Your task to perform on an android device: open app "Yahoo Mail" (install if not already installed), go to login, and select forgot password Image 0: 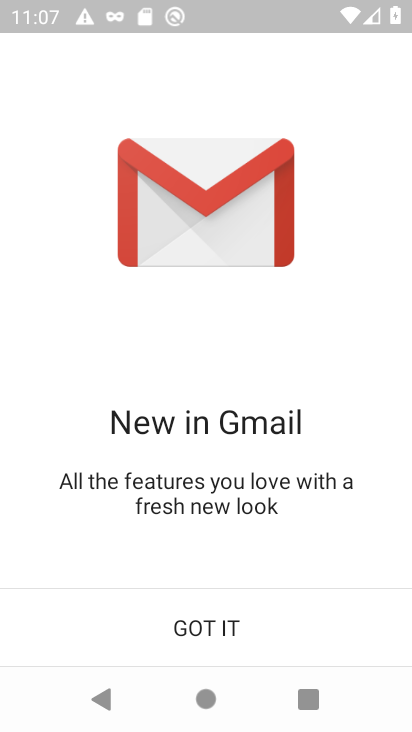
Step 0: press home button
Your task to perform on an android device: open app "Yahoo Mail" (install if not already installed), go to login, and select forgot password Image 1: 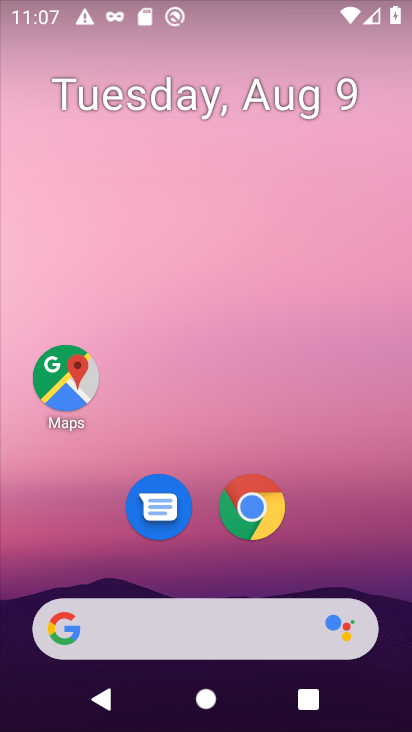
Step 1: drag from (161, 630) to (168, 104)
Your task to perform on an android device: open app "Yahoo Mail" (install if not already installed), go to login, and select forgot password Image 2: 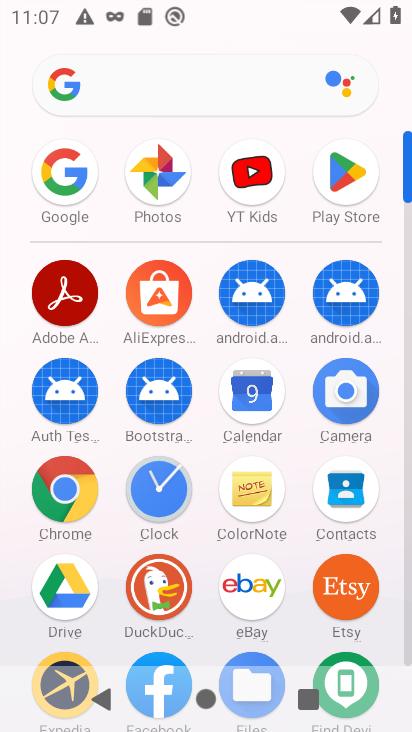
Step 2: press home button
Your task to perform on an android device: open app "Yahoo Mail" (install if not already installed), go to login, and select forgot password Image 3: 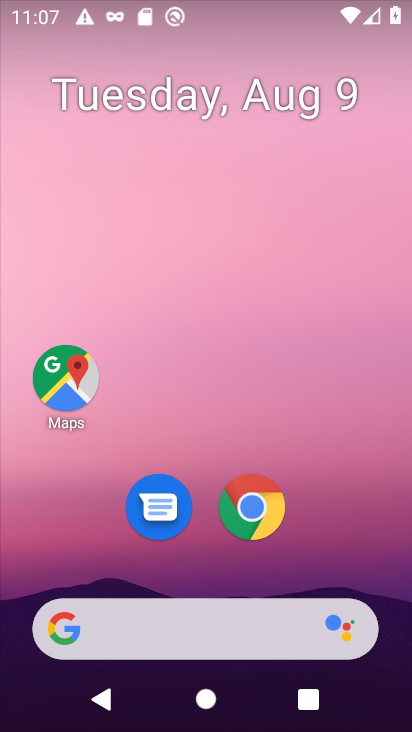
Step 3: drag from (172, 636) to (204, 191)
Your task to perform on an android device: open app "Yahoo Mail" (install if not already installed), go to login, and select forgot password Image 4: 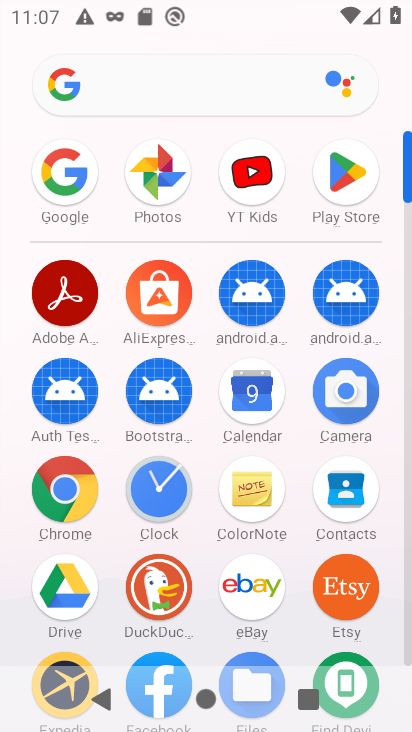
Step 4: click (352, 171)
Your task to perform on an android device: open app "Yahoo Mail" (install if not already installed), go to login, and select forgot password Image 5: 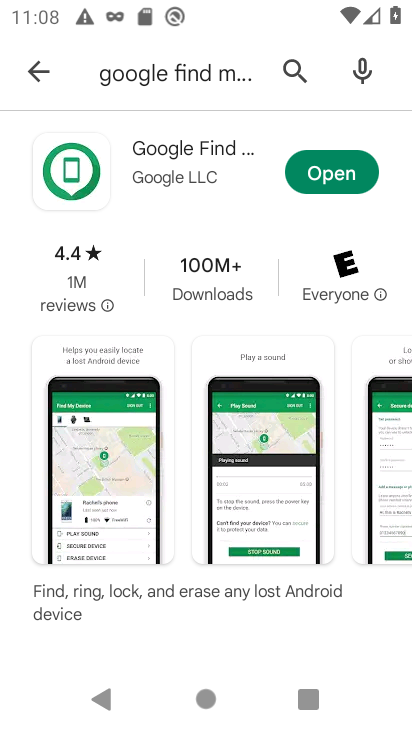
Step 5: press back button
Your task to perform on an android device: open app "Yahoo Mail" (install if not already installed), go to login, and select forgot password Image 6: 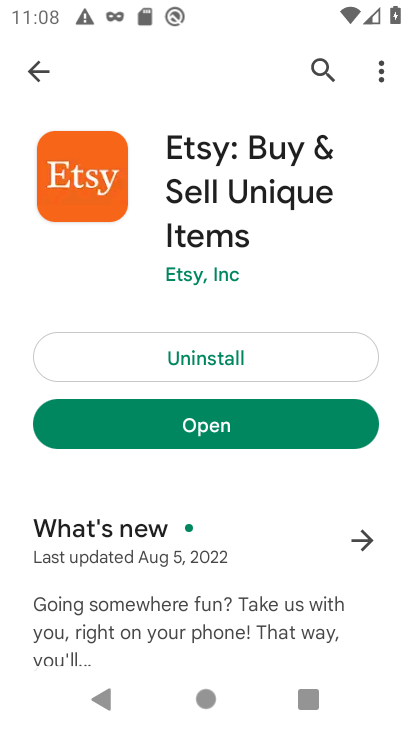
Step 6: click (313, 70)
Your task to perform on an android device: open app "Yahoo Mail" (install if not already installed), go to login, and select forgot password Image 7: 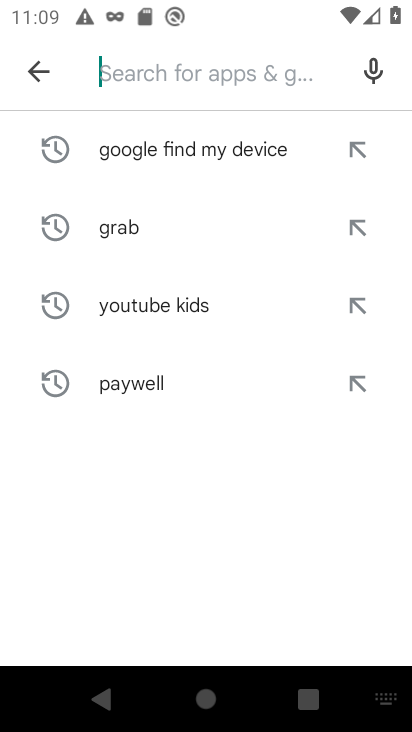
Step 7: type "Yahoo Mail"
Your task to perform on an android device: open app "Yahoo Mail" (install if not already installed), go to login, and select forgot password Image 8: 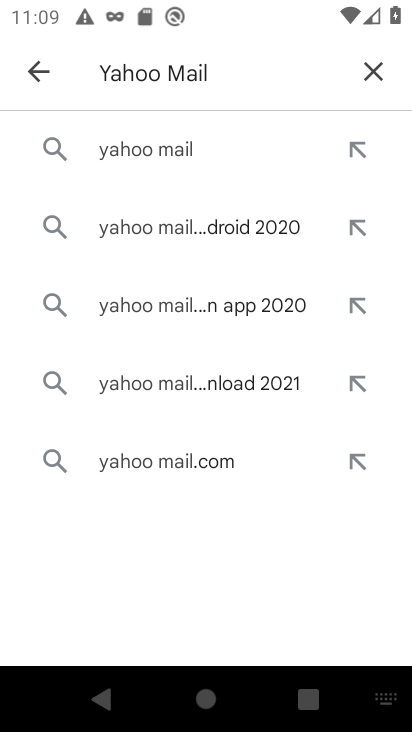
Step 8: click (169, 154)
Your task to perform on an android device: open app "Yahoo Mail" (install if not already installed), go to login, and select forgot password Image 9: 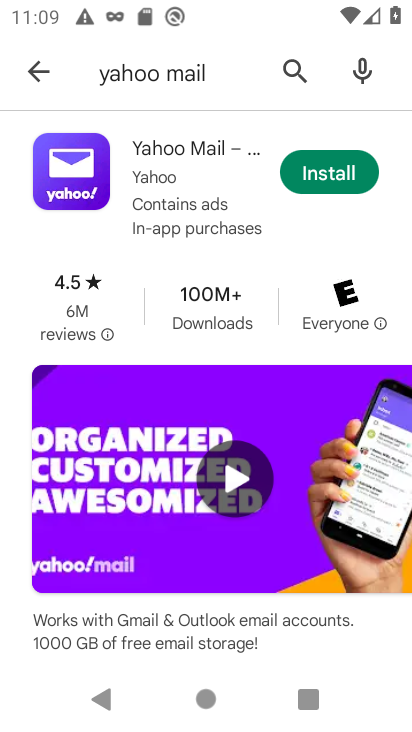
Step 9: click (319, 169)
Your task to perform on an android device: open app "Yahoo Mail" (install if not already installed), go to login, and select forgot password Image 10: 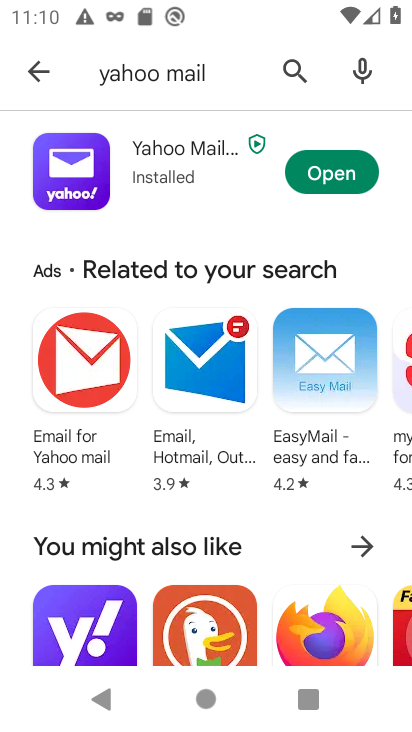
Step 10: click (334, 181)
Your task to perform on an android device: open app "Yahoo Mail" (install if not already installed), go to login, and select forgot password Image 11: 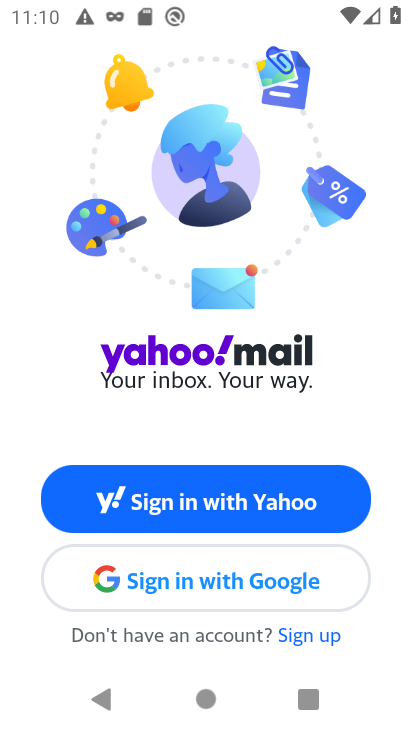
Step 11: click (234, 585)
Your task to perform on an android device: open app "Yahoo Mail" (install if not already installed), go to login, and select forgot password Image 12: 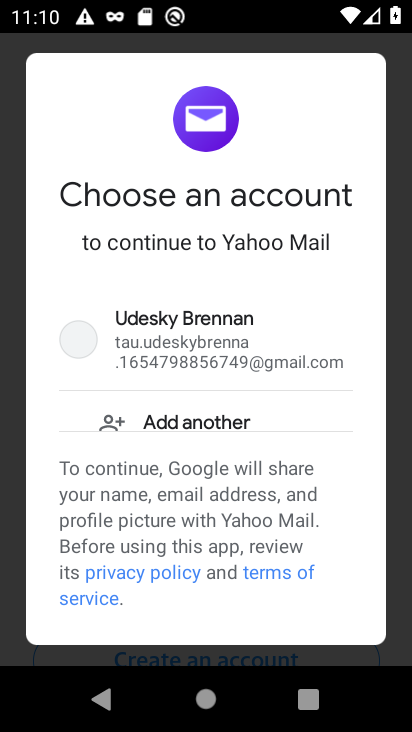
Step 12: drag from (207, 371) to (209, 316)
Your task to perform on an android device: open app "Yahoo Mail" (install if not already installed), go to login, and select forgot password Image 13: 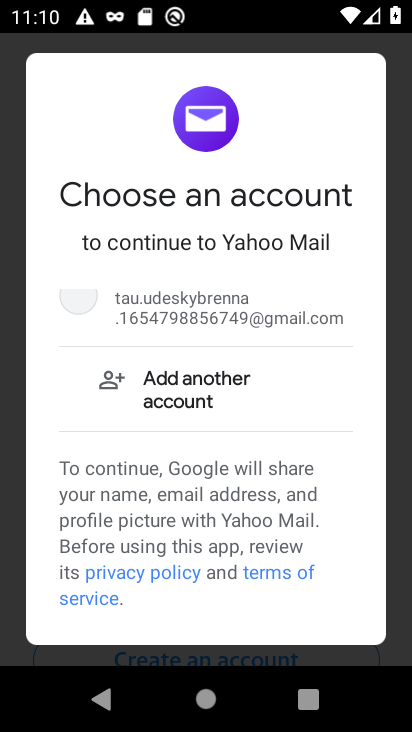
Step 13: click (212, 307)
Your task to perform on an android device: open app "Yahoo Mail" (install if not already installed), go to login, and select forgot password Image 14: 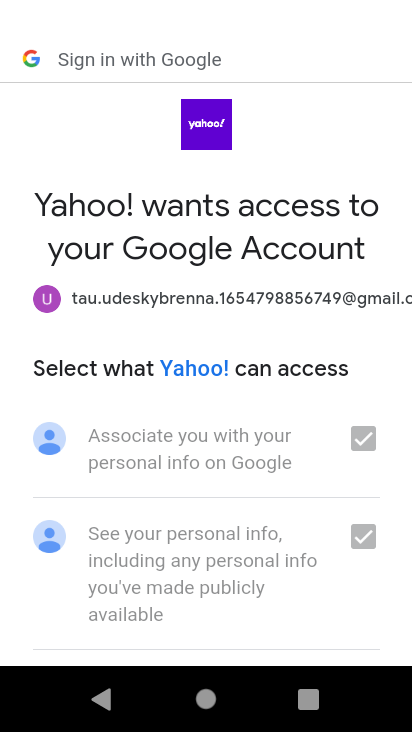
Step 14: drag from (185, 539) to (310, 299)
Your task to perform on an android device: open app "Yahoo Mail" (install if not already installed), go to login, and select forgot password Image 15: 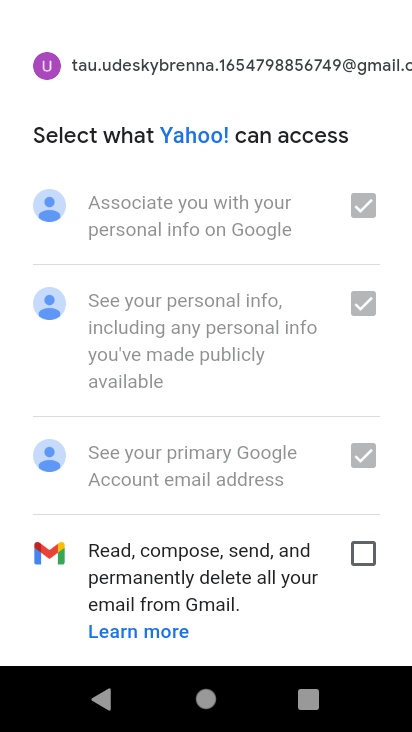
Step 15: drag from (205, 581) to (267, 344)
Your task to perform on an android device: open app "Yahoo Mail" (install if not already installed), go to login, and select forgot password Image 16: 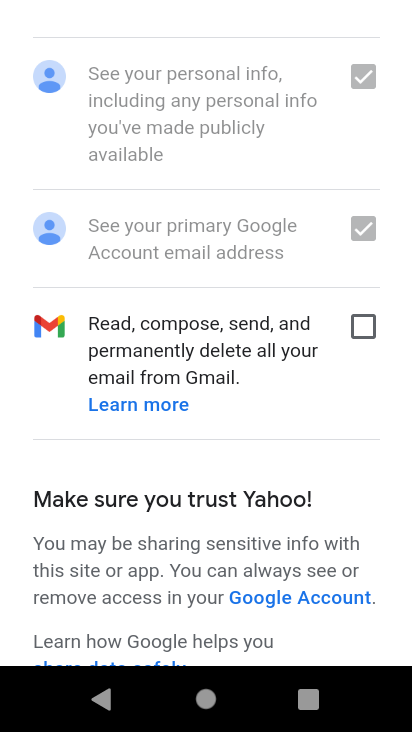
Step 16: drag from (191, 567) to (265, 300)
Your task to perform on an android device: open app "Yahoo Mail" (install if not already installed), go to login, and select forgot password Image 17: 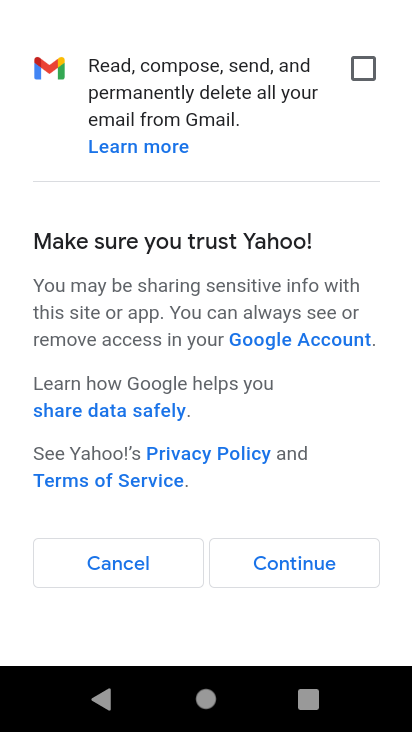
Step 17: click (256, 560)
Your task to perform on an android device: open app "Yahoo Mail" (install if not already installed), go to login, and select forgot password Image 18: 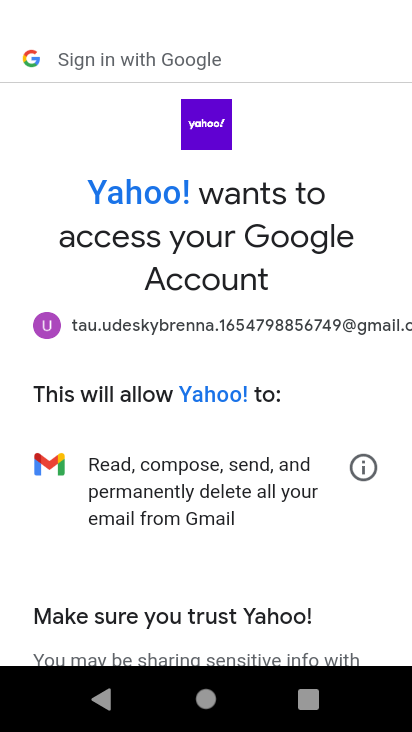
Step 18: drag from (208, 517) to (313, 284)
Your task to perform on an android device: open app "Yahoo Mail" (install if not already installed), go to login, and select forgot password Image 19: 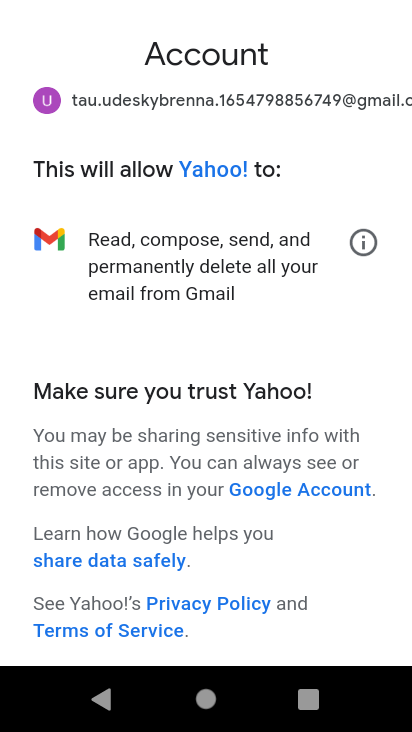
Step 19: drag from (246, 524) to (318, 259)
Your task to perform on an android device: open app "Yahoo Mail" (install if not already installed), go to login, and select forgot password Image 20: 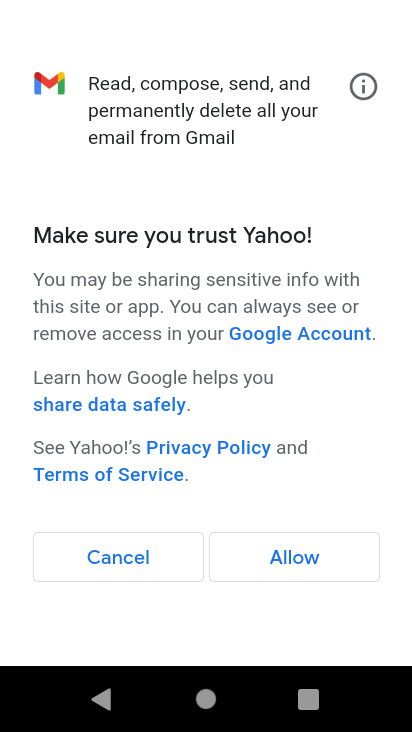
Step 20: click (286, 560)
Your task to perform on an android device: open app "Yahoo Mail" (install if not already installed), go to login, and select forgot password Image 21: 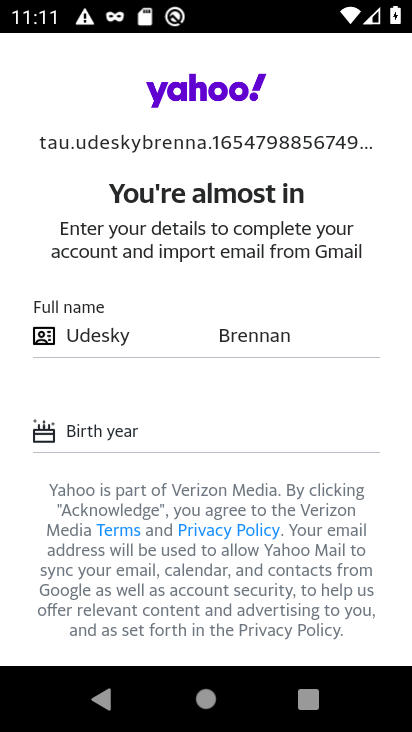
Step 21: drag from (214, 534) to (299, 268)
Your task to perform on an android device: open app "Yahoo Mail" (install if not already installed), go to login, and select forgot password Image 22: 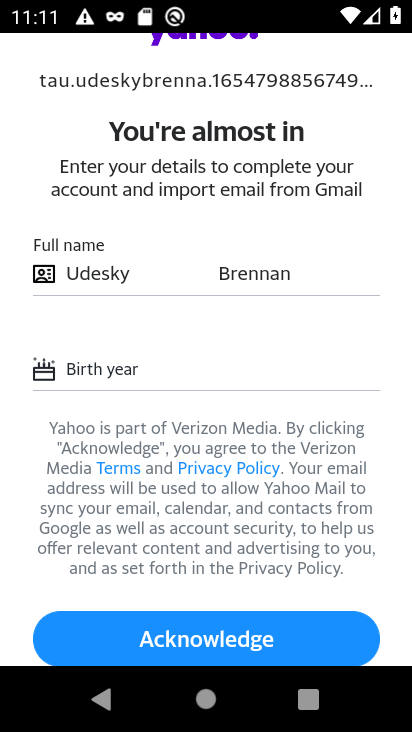
Step 22: drag from (230, 565) to (311, 305)
Your task to perform on an android device: open app "Yahoo Mail" (install if not already installed), go to login, and select forgot password Image 23: 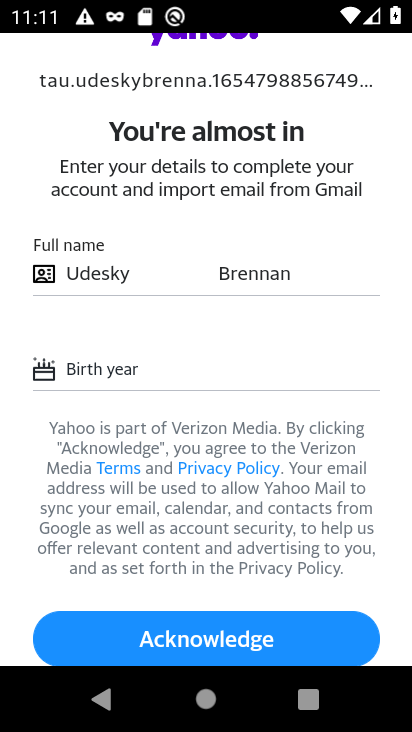
Step 23: press back button
Your task to perform on an android device: open app "Yahoo Mail" (install if not already installed), go to login, and select forgot password Image 24: 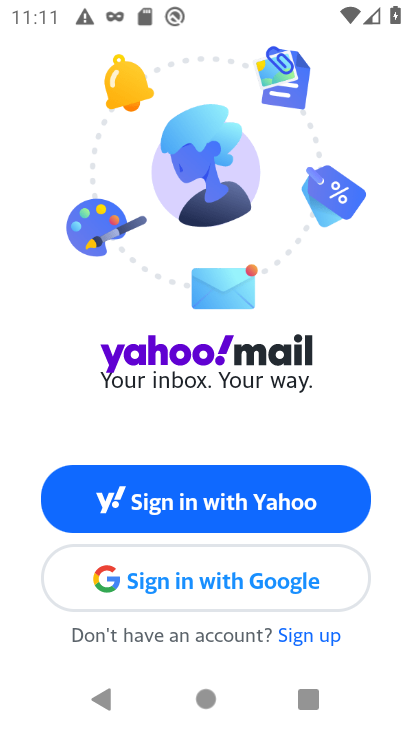
Step 24: click (323, 632)
Your task to perform on an android device: open app "Yahoo Mail" (install if not already installed), go to login, and select forgot password Image 25: 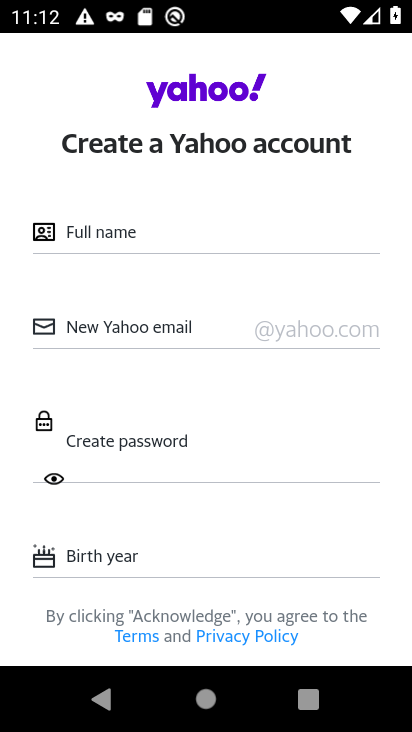
Step 25: drag from (168, 567) to (291, 215)
Your task to perform on an android device: open app "Yahoo Mail" (install if not already installed), go to login, and select forgot password Image 26: 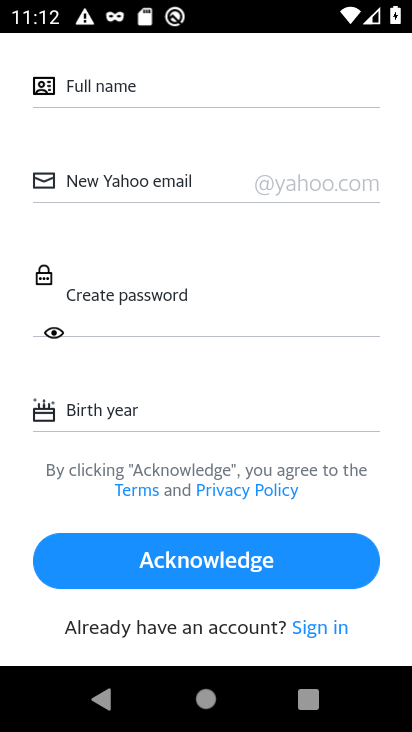
Step 26: click (307, 625)
Your task to perform on an android device: open app "Yahoo Mail" (install if not already installed), go to login, and select forgot password Image 27: 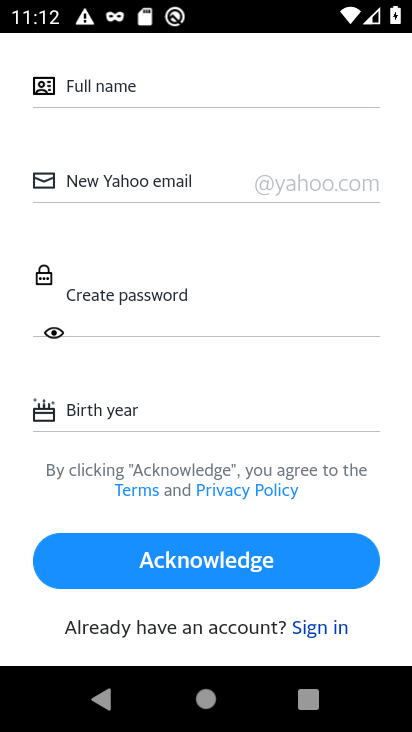
Step 27: click (307, 625)
Your task to perform on an android device: open app "Yahoo Mail" (install if not already installed), go to login, and select forgot password Image 28: 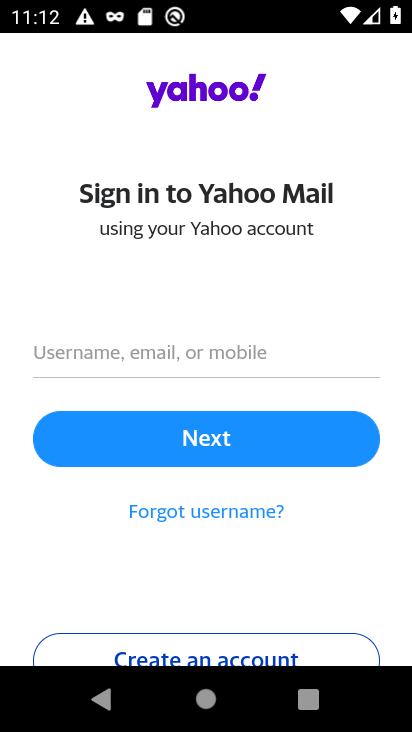
Step 28: drag from (251, 556) to (340, 221)
Your task to perform on an android device: open app "Yahoo Mail" (install if not already installed), go to login, and select forgot password Image 29: 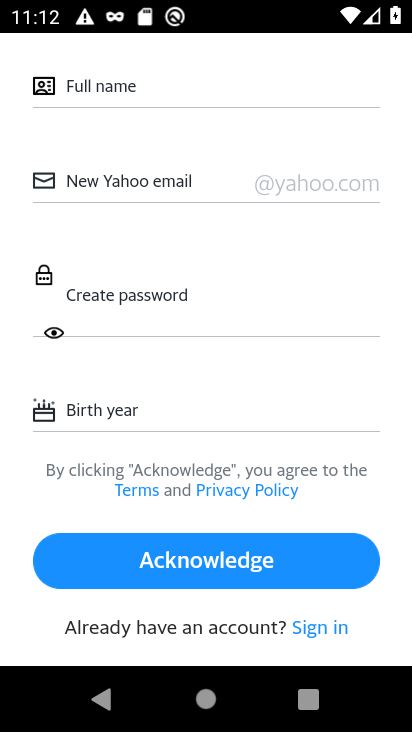
Step 29: press back button
Your task to perform on an android device: open app "Yahoo Mail" (install if not already installed), go to login, and select forgot password Image 30: 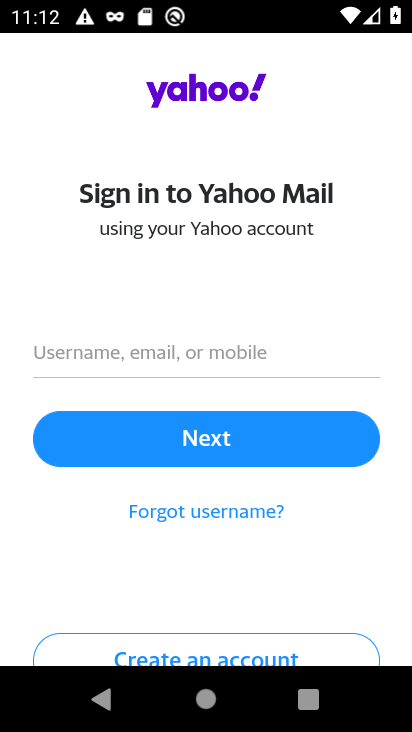
Step 30: drag from (291, 561) to (383, 215)
Your task to perform on an android device: open app "Yahoo Mail" (install if not already installed), go to login, and select forgot password Image 31: 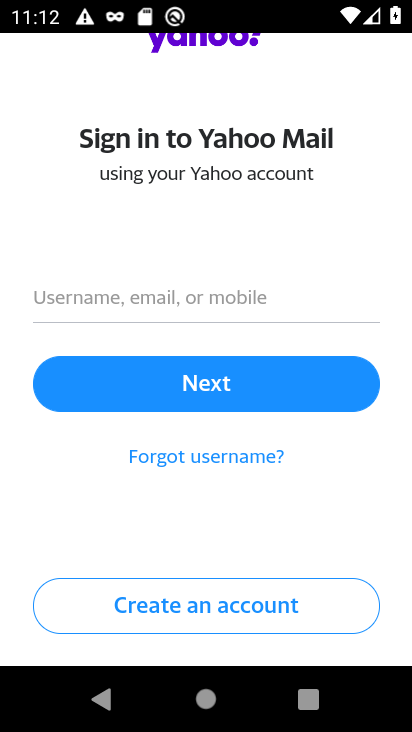
Step 31: click (268, 459)
Your task to perform on an android device: open app "Yahoo Mail" (install if not already installed), go to login, and select forgot password Image 32: 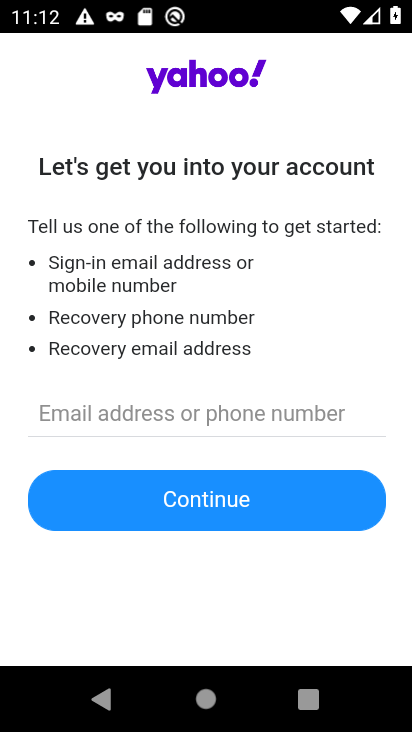
Step 32: click (238, 425)
Your task to perform on an android device: open app "Yahoo Mail" (install if not already installed), go to login, and select forgot password Image 33: 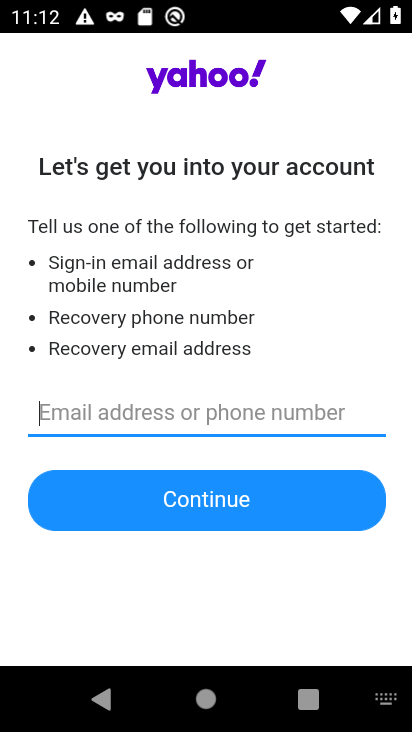
Step 33: click (216, 413)
Your task to perform on an android device: open app "Yahoo Mail" (install if not already installed), go to login, and select forgot password Image 34: 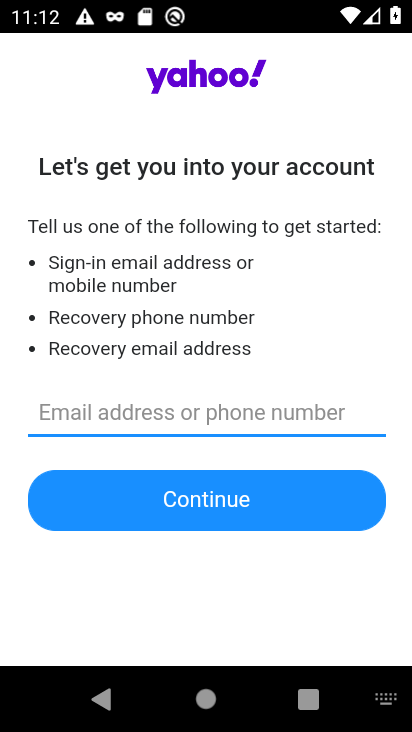
Step 34: click (228, 491)
Your task to perform on an android device: open app "Yahoo Mail" (install if not already installed), go to login, and select forgot password Image 35: 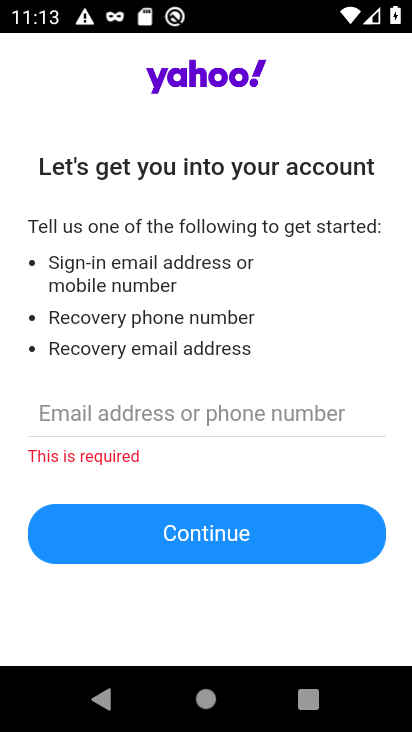
Step 35: task complete